Your task to perform on an android device: turn on notifications settings in the gmail app Image 0: 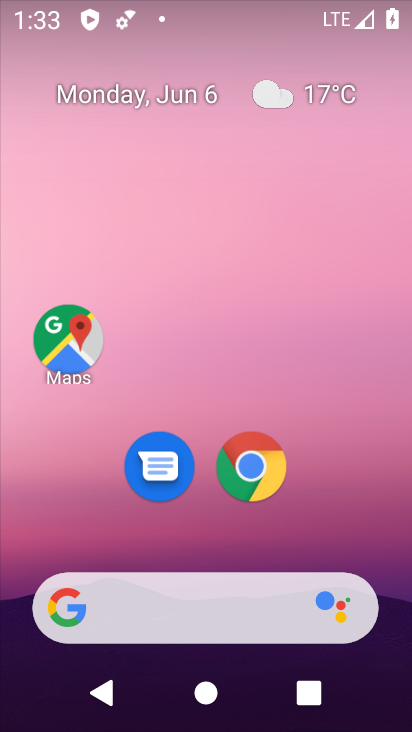
Step 0: press home button
Your task to perform on an android device: turn on notifications settings in the gmail app Image 1: 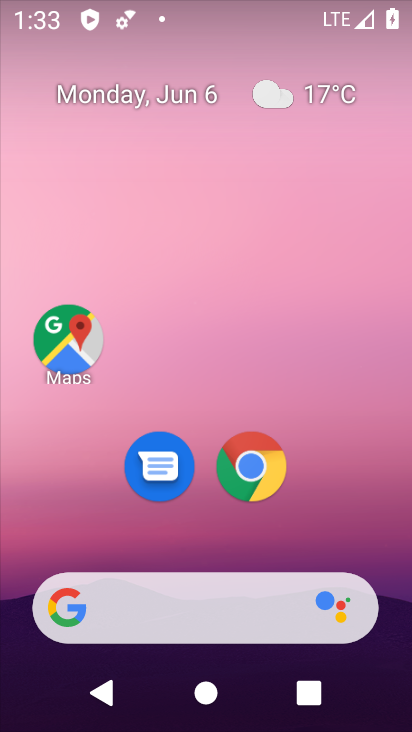
Step 1: drag from (222, 565) to (195, 81)
Your task to perform on an android device: turn on notifications settings in the gmail app Image 2: 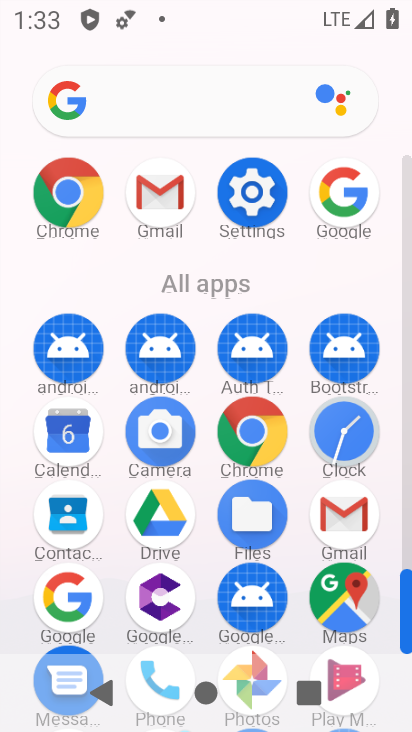
Step 2: click (173, 226)
Your task to perform on an android device: turn on notifications settings in the gmail app Image 3: 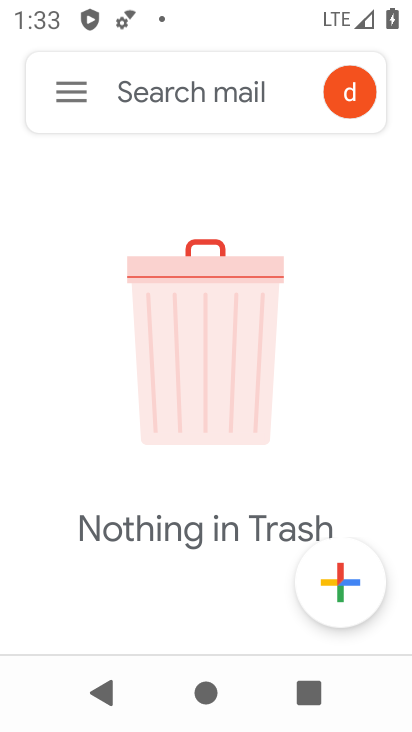
Step 3: click (73, 109)
Your task to perform on an android device: turn on notifications settings in the gmail app Image 4: 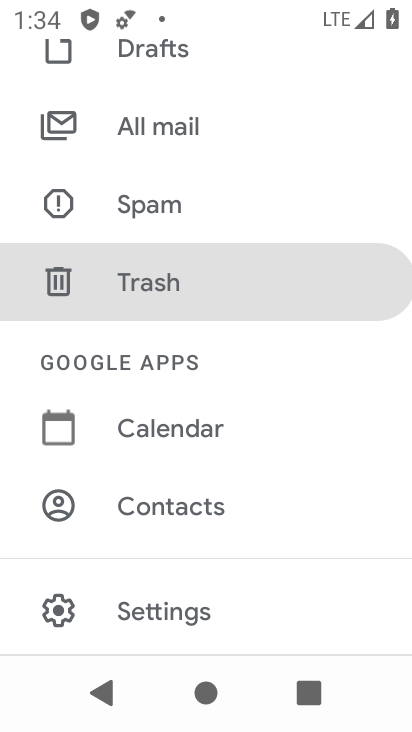
Step 4: click (160, 600)
Your task to perform on an android device: turn on notifications settings in the gmail app Image 5: 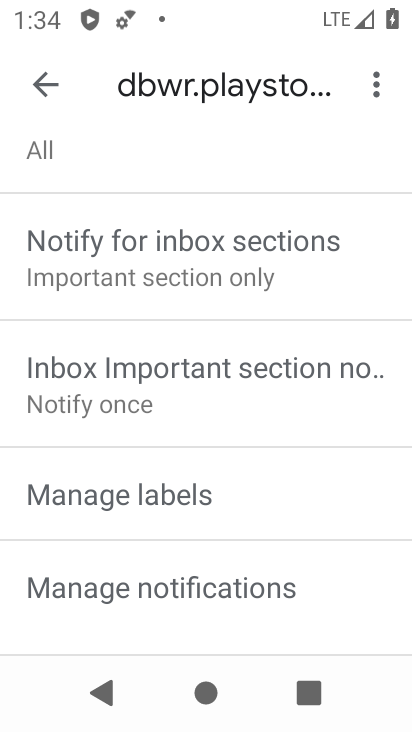
Step 5: click (51, 90)
Your task to perform on an android device: turn on notifications settings in the gmail app Image 6: 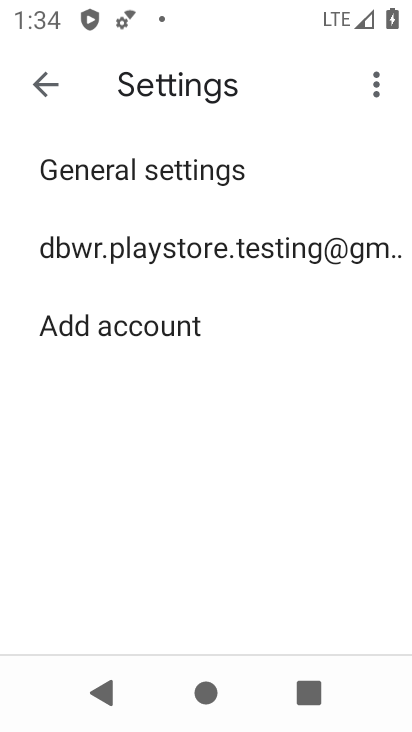
Step 6: click (134, 170)
Your task to perform on an android device: turn on notifications settings in the gmail app Image 7: 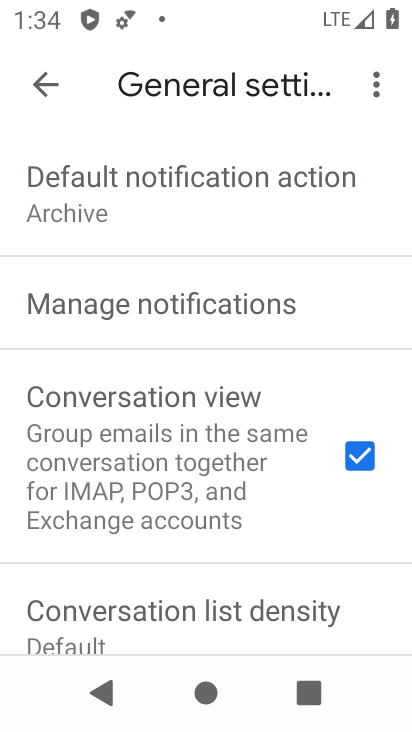
Step 7: click (153, 308)
Your task to perform on an android device: turn on notifications settings in the gmail app Image 8: 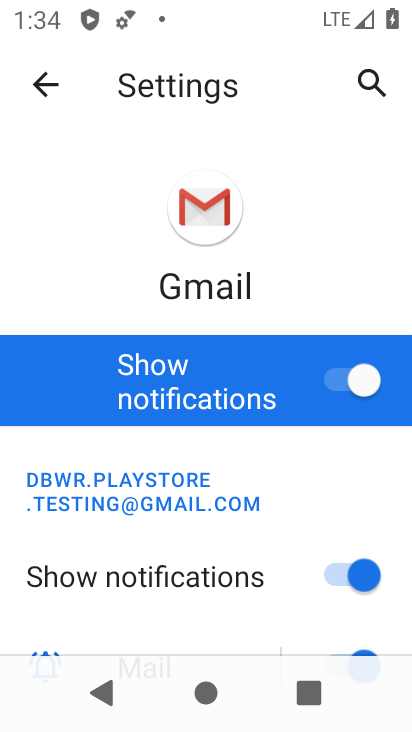
Step 8: task complete